Your task to perform on an android device: turn on improve location accuracy Image 0: 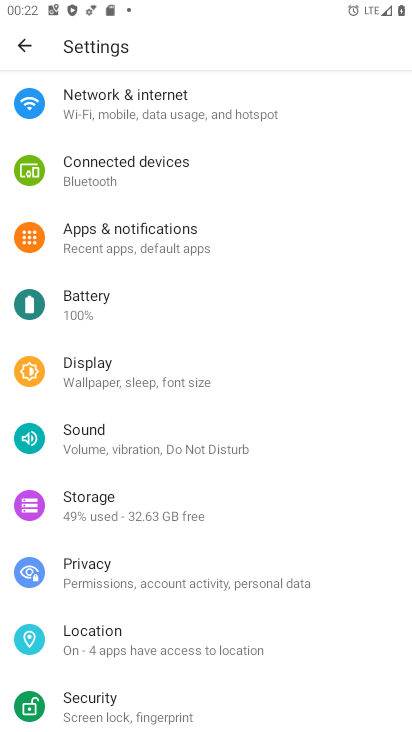
Step 0: click (105, 646)
Your task to perform on an android device: turn on improve location accuracy Image 1: 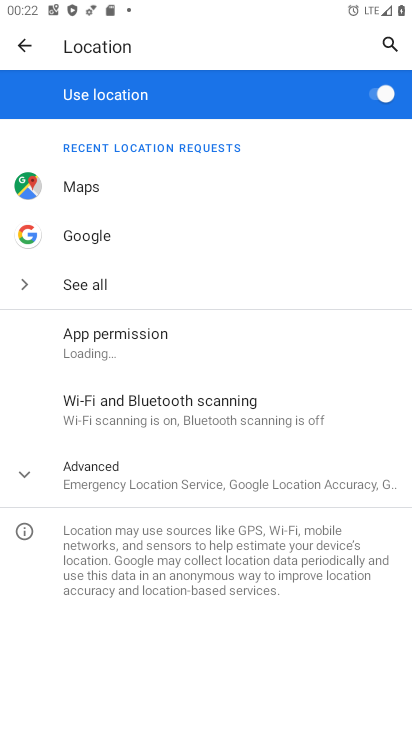
Step 1: click (141, 483)
Your task to perform on an android device: turn on improve location accuracy Image 2: 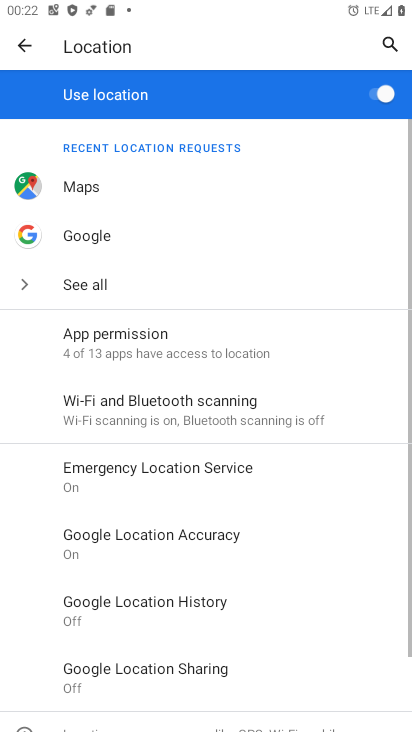
Step 2: click (149, 540)
Your task to perform on an android device: turn on improve location accuracy Image 3: 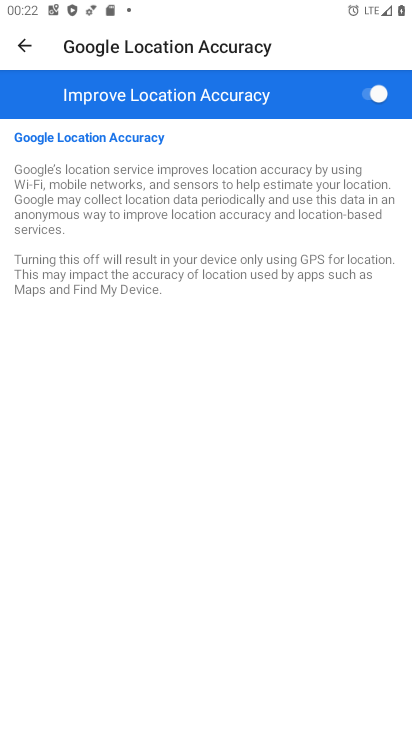
Step 3: task complete